Your task to perform on an android device: check the backup settings in the google photos Image 0: 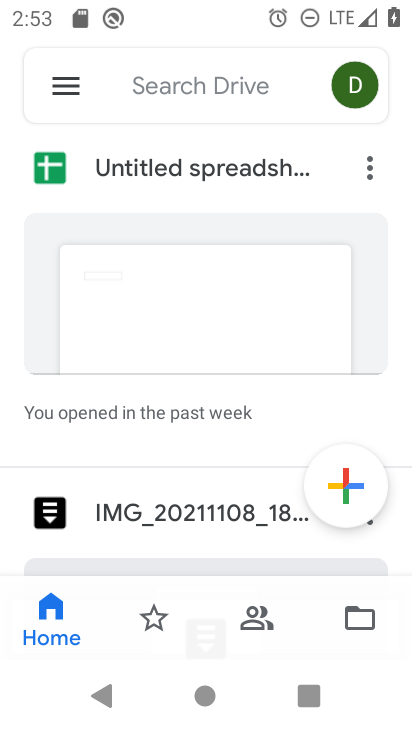
Step 0: press home button
Your task to perform on an android device: check the backup settings in the google photos Image 1: 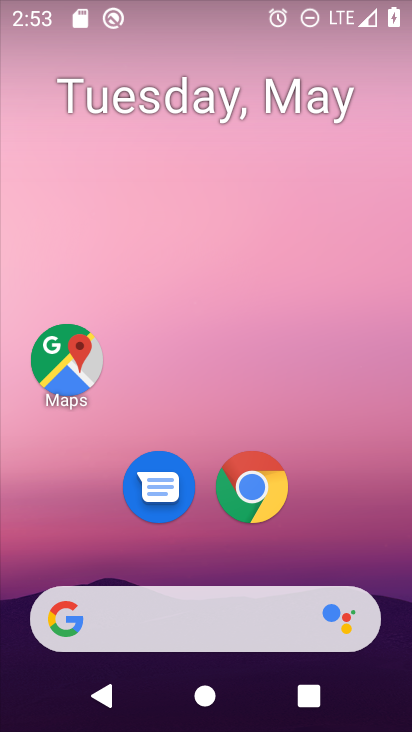
Step 1: drag from (16, 513) to (220, 140)
Your task to perform on an android device: check the backup settings in the google photos Image 2: 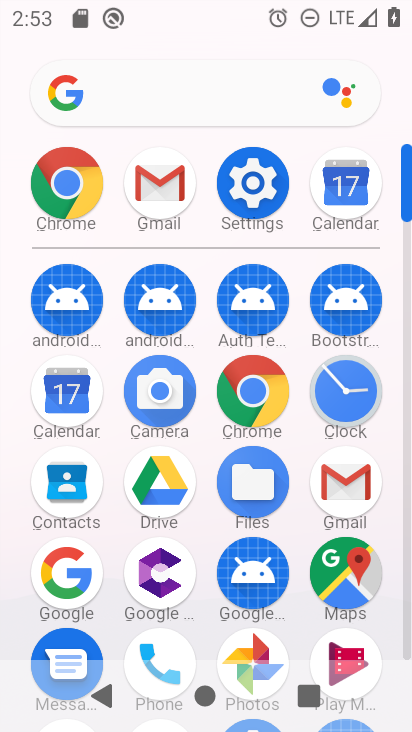
Step 2: click (262, 645)
Your task to perform on an android device: check the backup settings in the google photos Image 3: 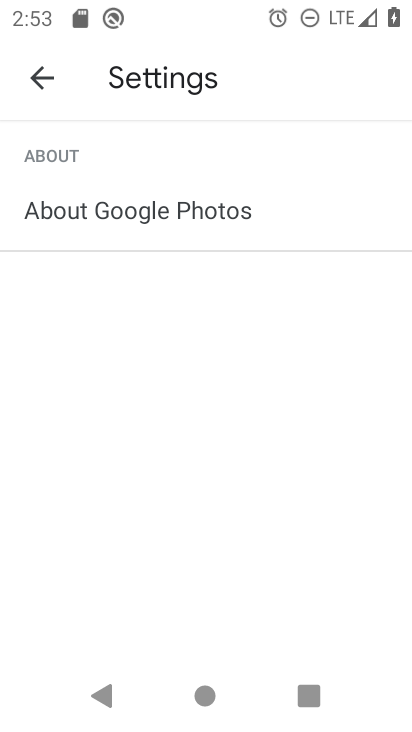
Step 3: click (34, 74)
Your task to perform on an android device: check the backup settings in the google photos Image 4: 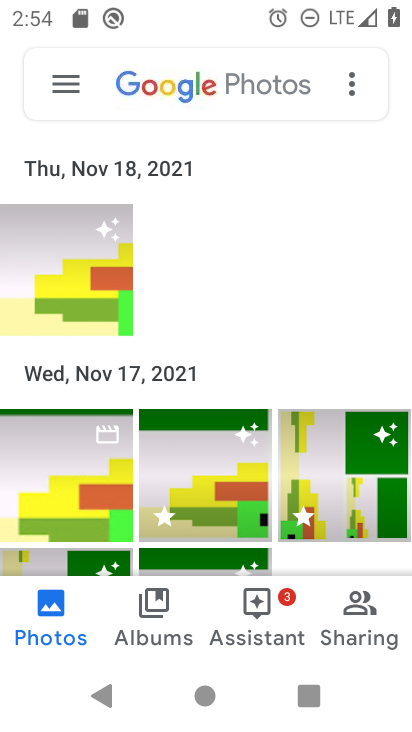
Step 4: click (62, 85)
Your task to perform on an android device: check the backup settings in the google photos Image 5: 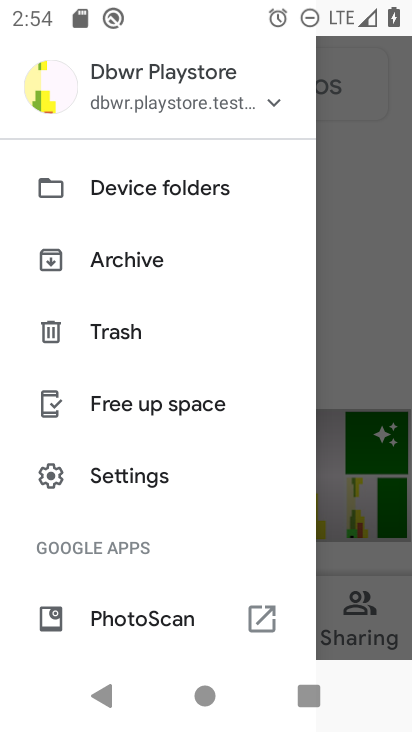
Step 5: click (72, 460)
Your task to perform on an android device: check the backup settings in the google photos Image 6: 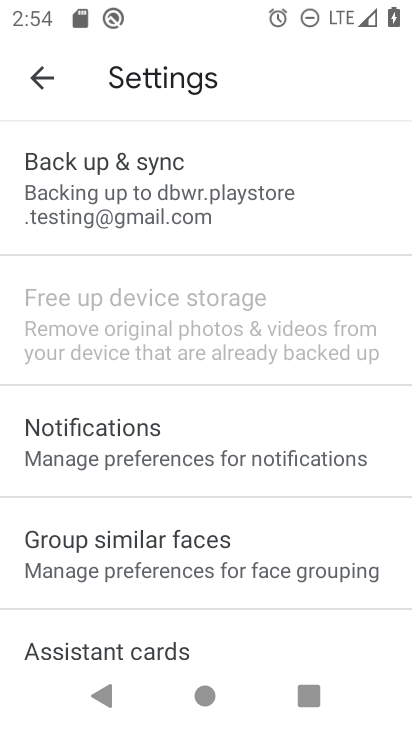
Step 6: click (110, 188)
Your task to perform on an android device: check the backup settings in the google photos Image 7: 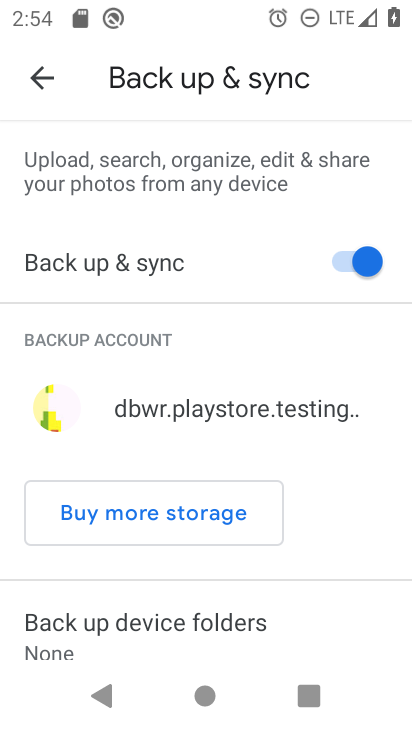
Step 7: drag from (31, 526) to (136, 255)
Your task to perform on an android device: check the backup settings in the google photos Image 8: 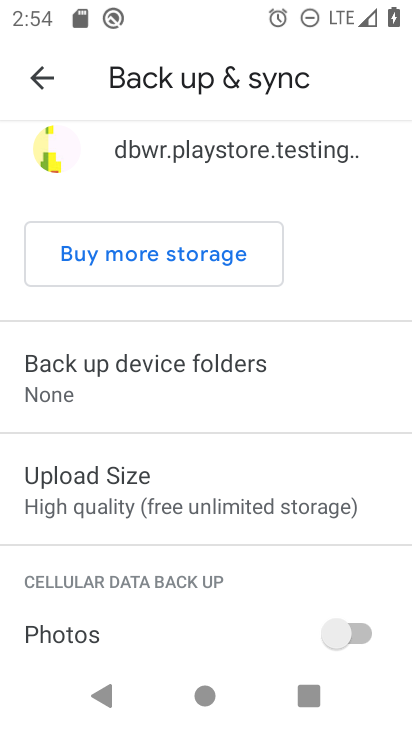
Step 8: click (146, 376)
Your task to perform on an android device: check the backup settings in the google photos Image 9: 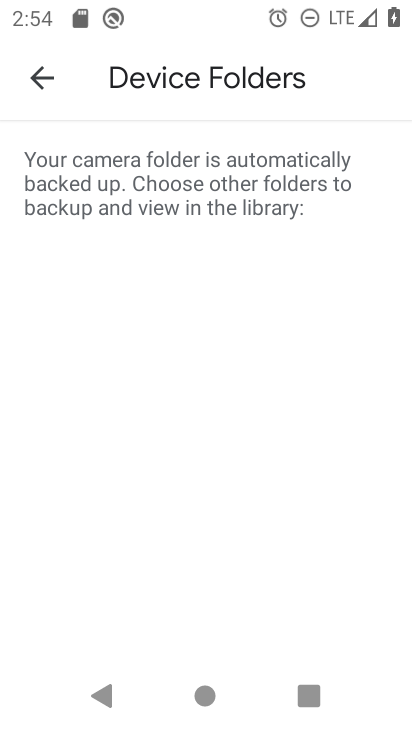
Step 9: task complete